Your task to perform on an android device: check storage Image 0: 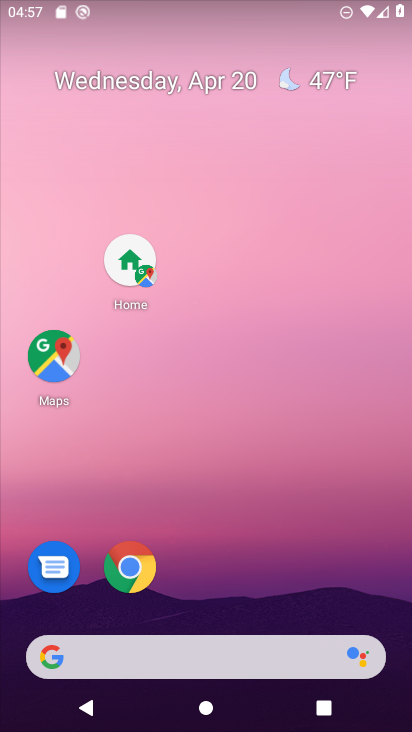
Step 0: drag from (266, 13) to (303, 658)
Your task to perform on an android device: check storage Image 1: 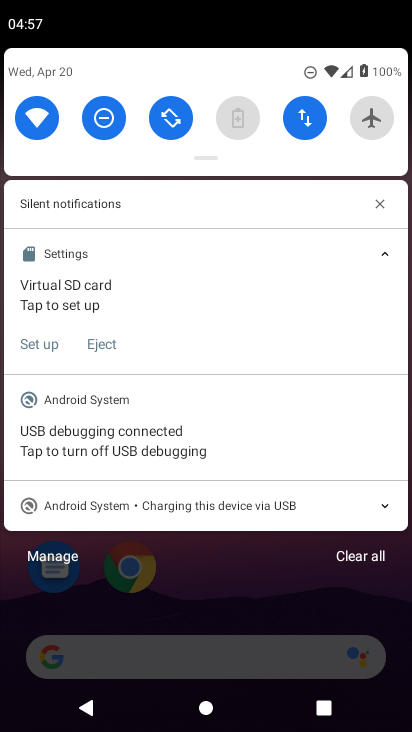
Step 1: drag from (236, 87) to (259, 630)
Your task to perform on an android device: check storage Image 2: 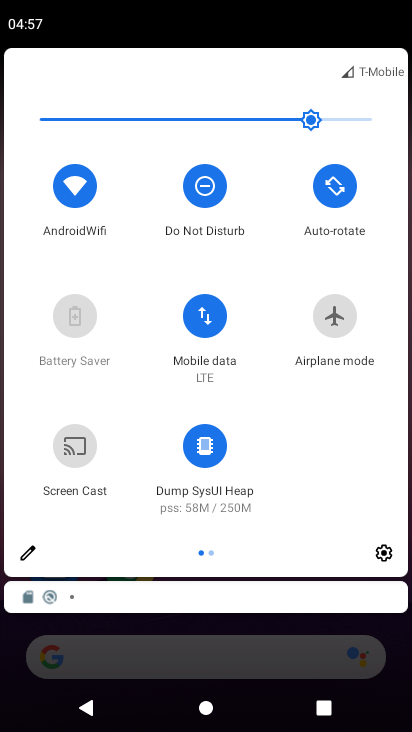
Step 2: click (388, 557)
Your task to perform on an android device: check storage Image 3: 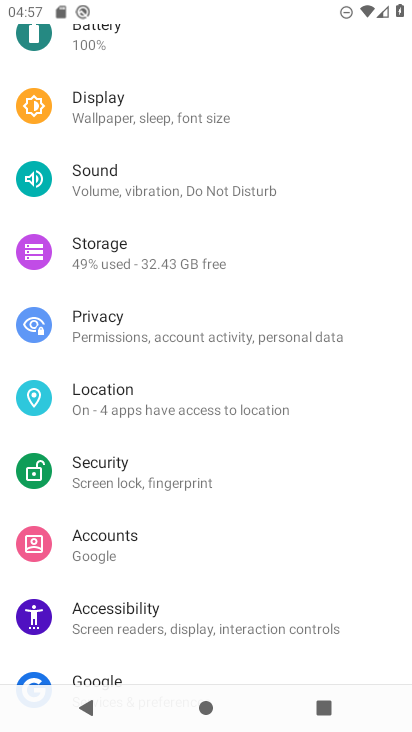
Step 3: drag from (117, 616) to (160, 405)
Your task to perform on an android device: check storage Image 4: 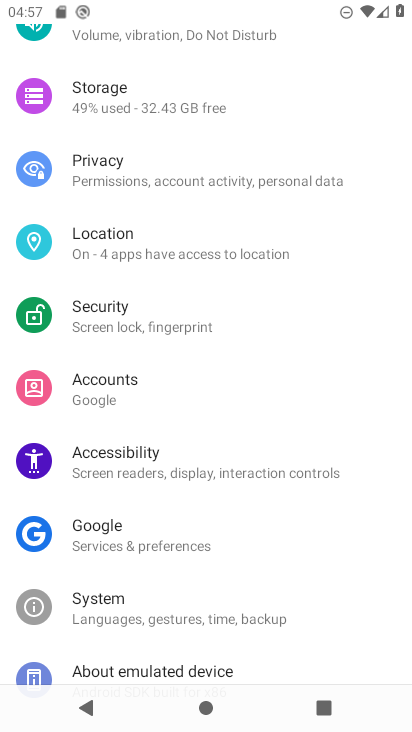
Step 4: click (161, 108)
Your task to perform on an android device: check storage Image 5: 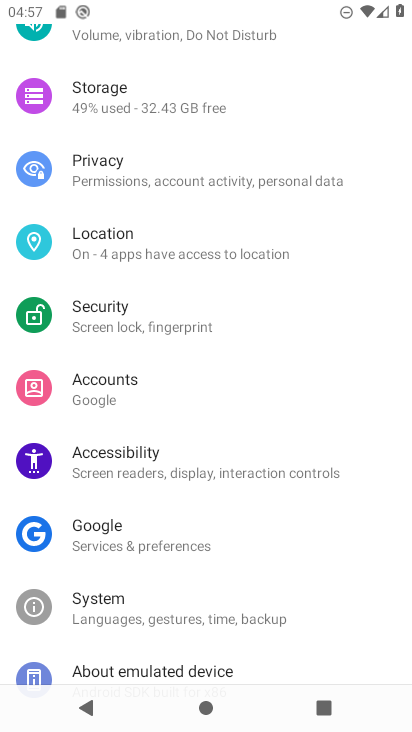
Step 5: click (161, 108)
Your task to perform on an android device: check storage Image 6: 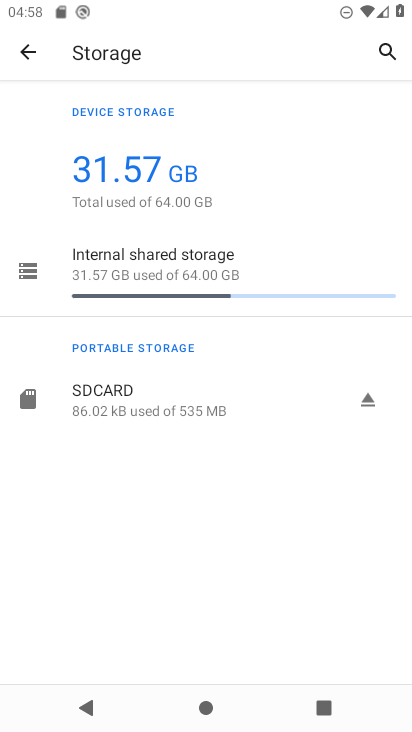
Step 6: task complete